Your task to perform on an android device: Open the phone app and click the voicemail tab. Image 0: 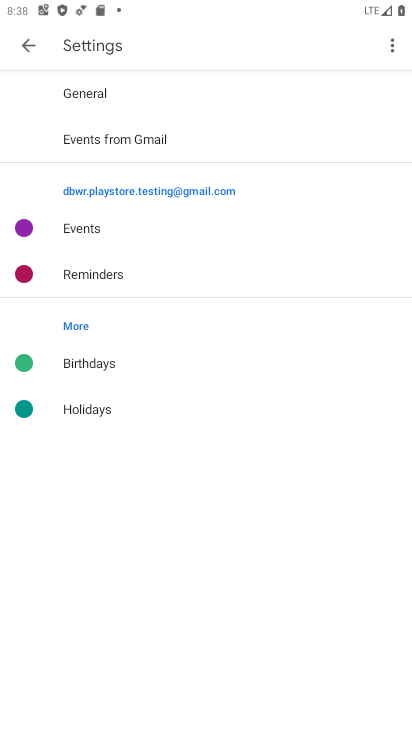
Step 0: press back button
Your task to perform on an android device: Open the phone app and click the voicemail tab. Image 1: 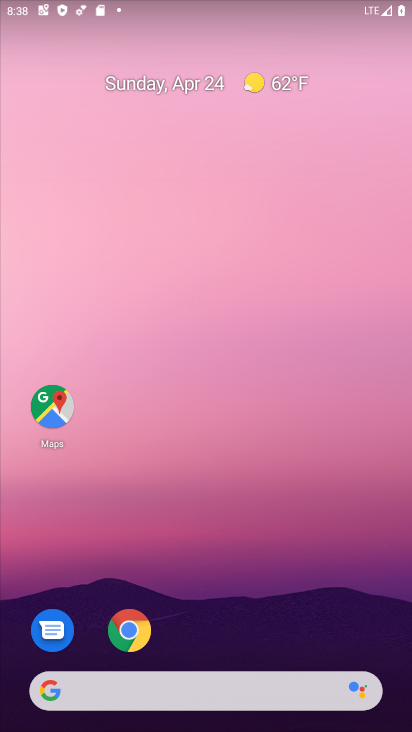
Step 1: drag from (313, 585) to (282, 23)
Your task to perform on an android device: Open the phone app and click the voicemail tab. Image 2: 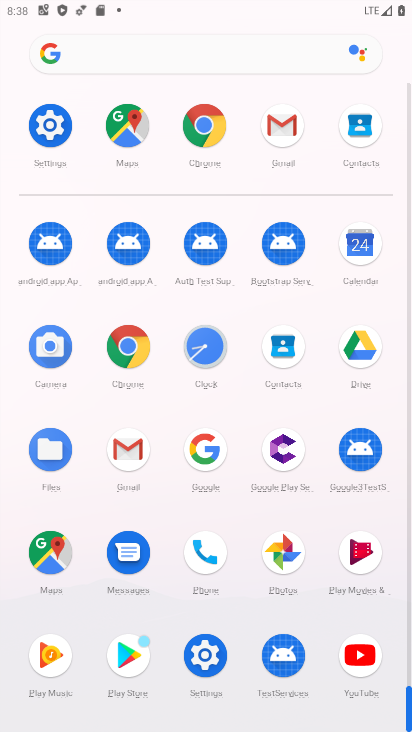
Step 2: drag from (5, 542) to (7, 252)
Your task to perform on an android device: Open the phone app and click the voicemail tab. Image 3: 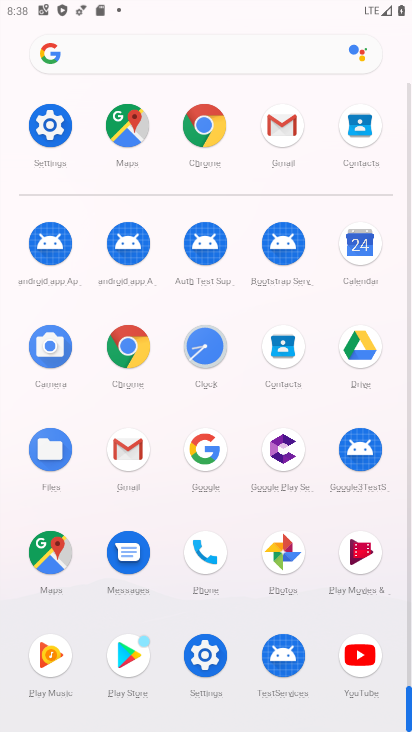
Step 3: click (201, 546)
Your task to perform on an android device: Open the phone app and click the voicemail tab. Image 4: 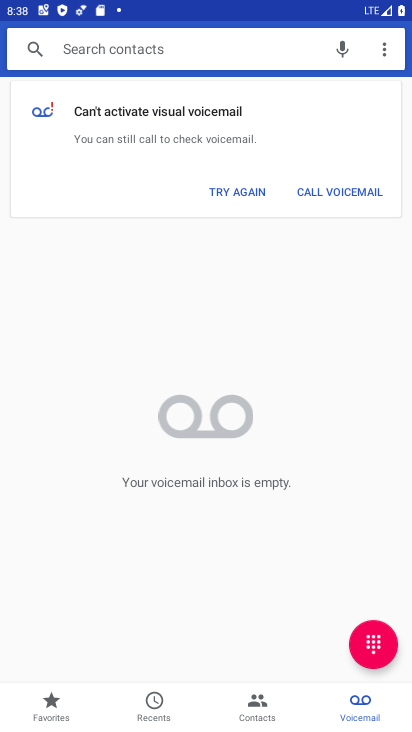
Step 4: task complete